Your task to perform on an android device: Open notification settings Image 0: 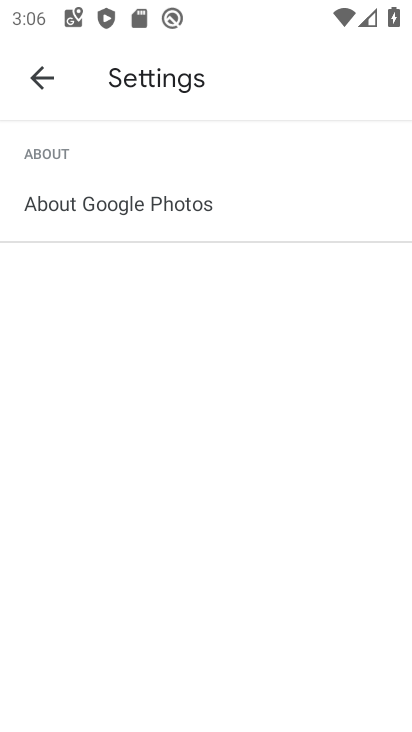
Step 0: press home button
Your task to perform on an android device: Open notification settings Image 1: 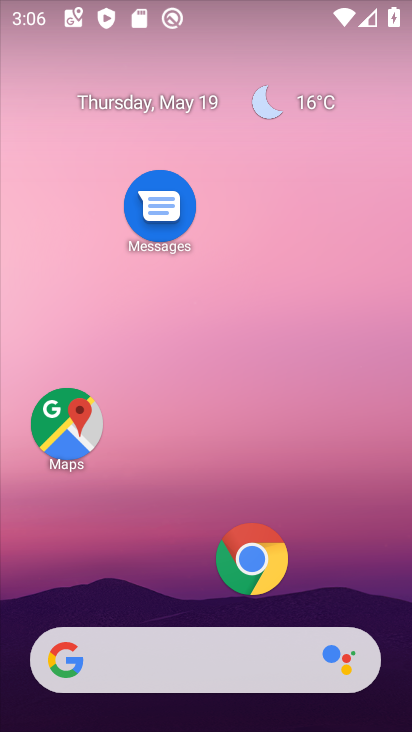
Step 1: drag from (189, 602) to (223, 260)
Your task to perform on an android device: Open notification settings Image 2: 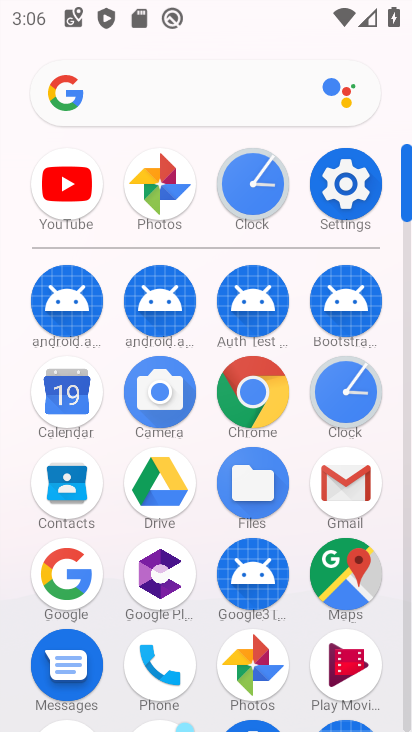
Step 2: click (331, 203)
Your task to perform on an android device: Open notification settings Image 3: 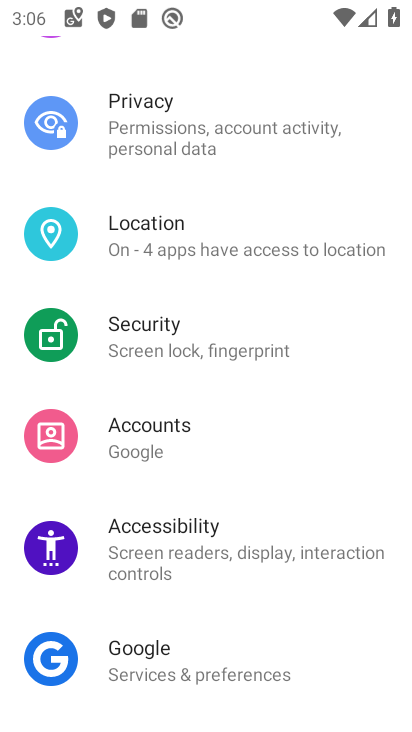
Step 3: drag from (197, 210) to (217, 521)
Your task to perform on an android device: Open notification settings Image 4: 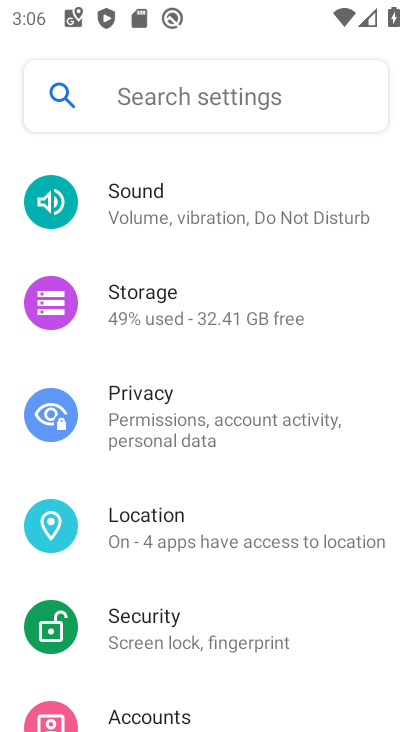
Step 4: drag from (217, 258) to (233, 507)
Your task to perform on an android device: Open notification settings Image 5: 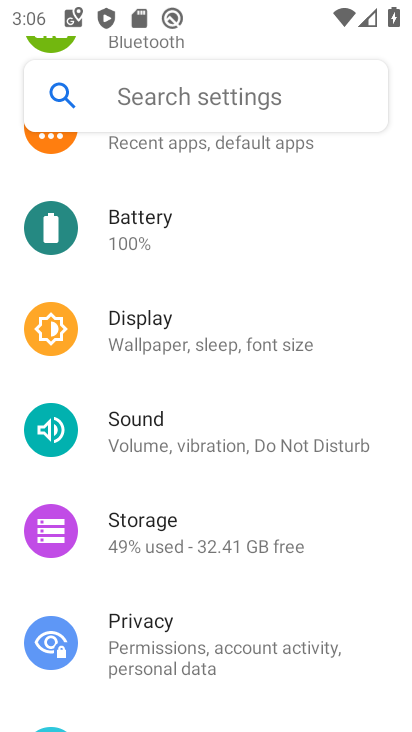
Step 5: drag from (222, 204) to (226, 467)
Your task to perform on an android device: Open notification settings Image 6: 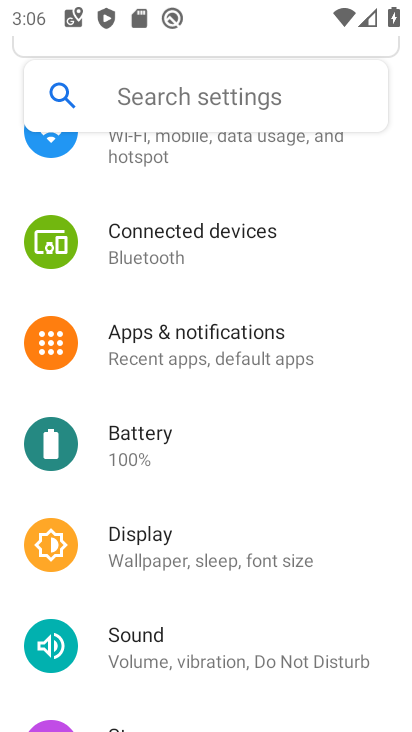
Step 6: click (204, 356)
Your task to perform on an android device: Open notification settings Image 7: 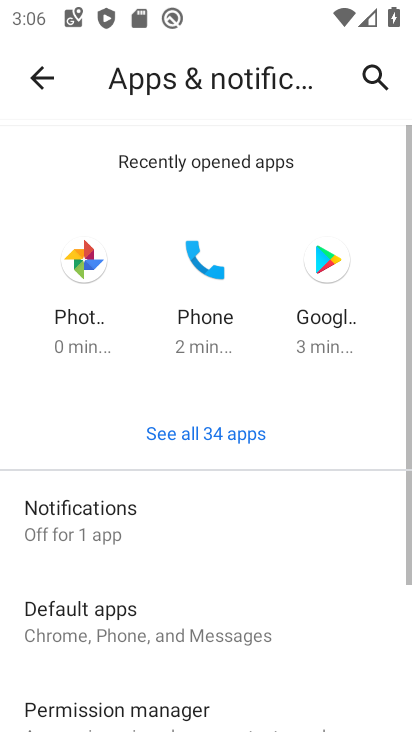
Step 7: drag from (186, 579) to (183, 263)
Your task to perform on an android device: Open notification settings Image 8: 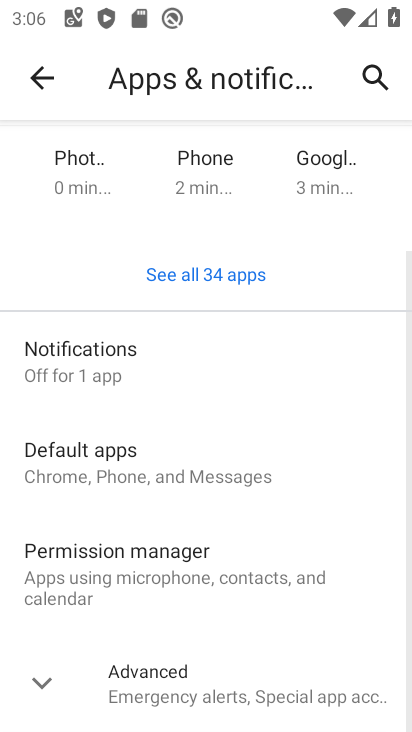
Step 8: click (127, 362)
Your task to perform on an android device: Open notification settings Image 9: 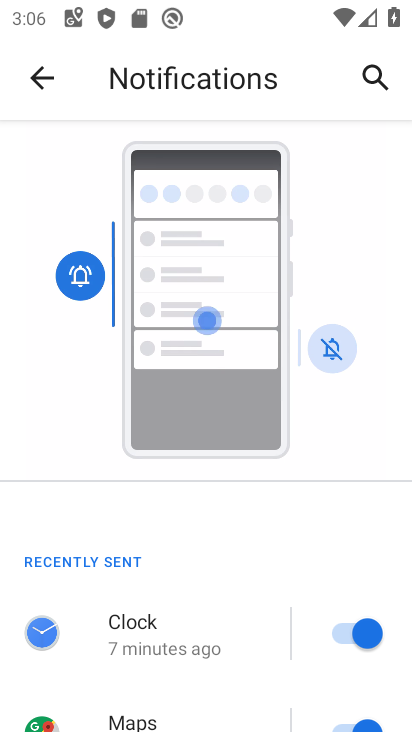
Step 9: task complete